Your task to perform on an android device: Go to Maps Image 0: 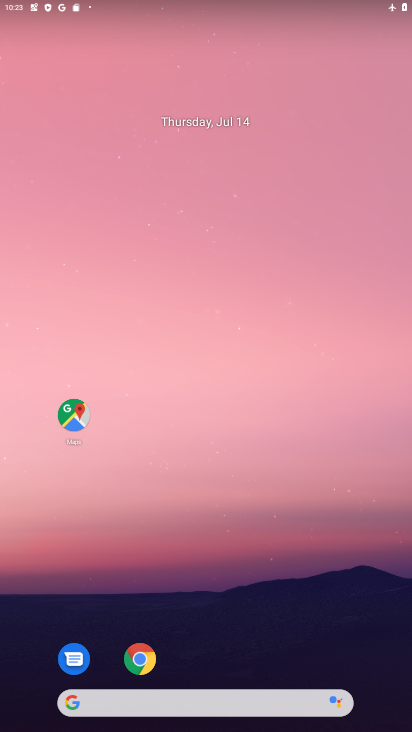
Step 0: click (64, 410)
Your task to perform on an android device: Go to Maps Image 1: 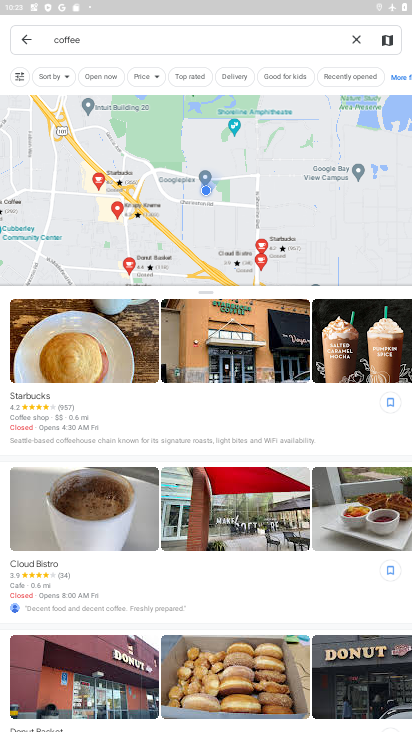
Step 1: task complete